Your task to perform on an android device: Open wifi settings Image 0: 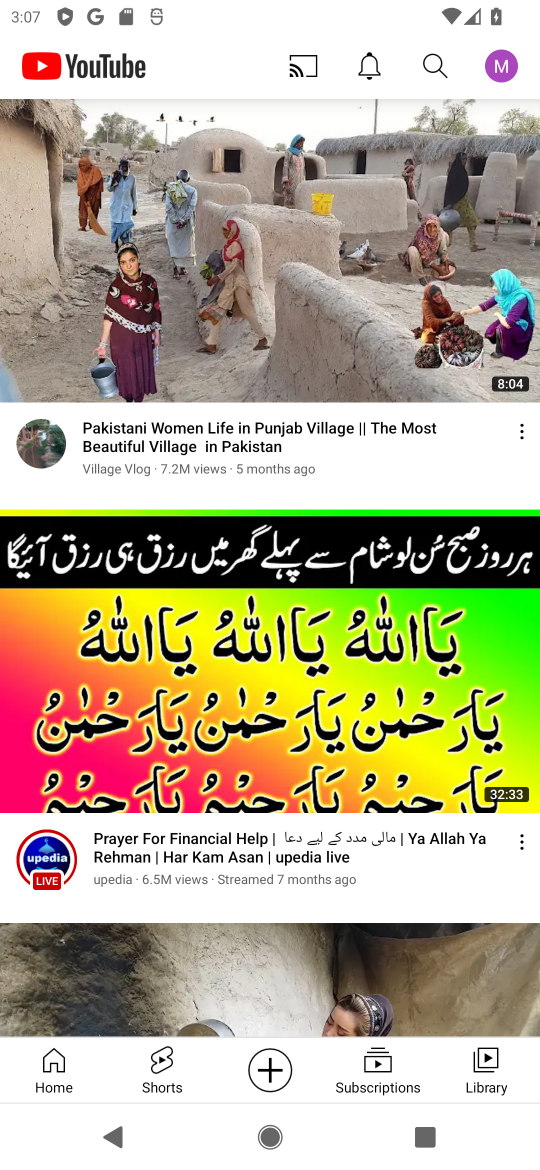
Step 0: press home button
Your task to perform on an android device: Open wifi settings Image 1: 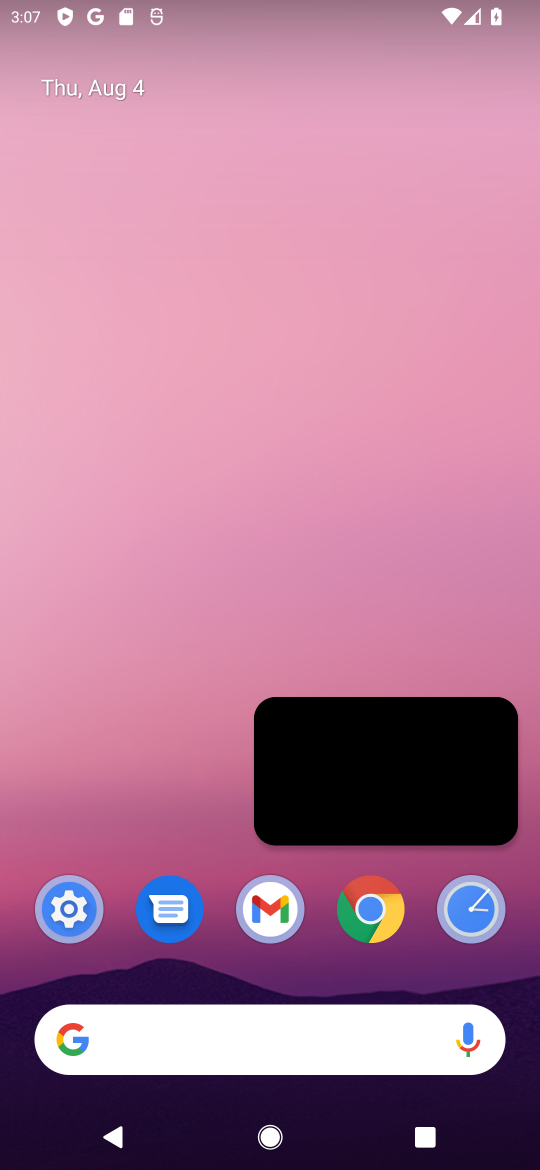
Step 1: click (394, 769)
Your task to perform on an android device: Open wifi settings Image 2: 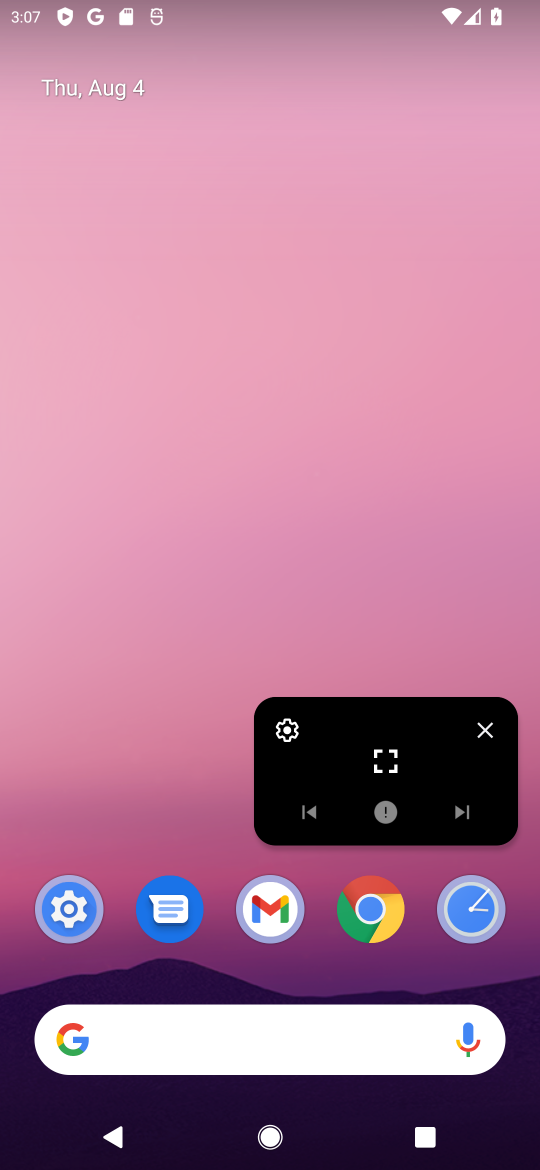
Step 2: click (484, 732)
Your task to perform on an android device: Open wifi settings Image 3: 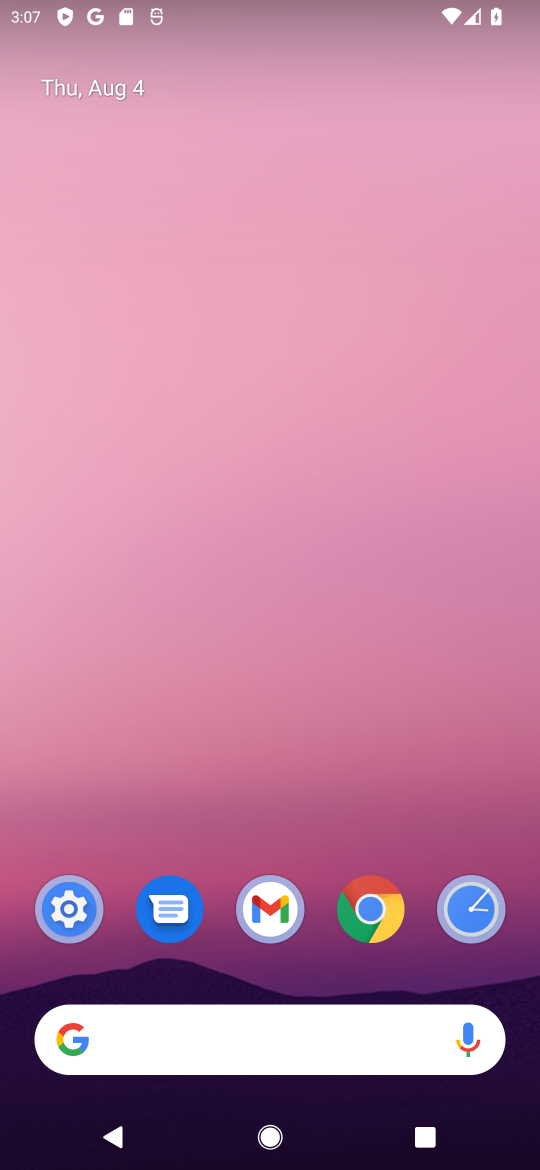
Step 3: click (67, 902)
Your task to perform on an android device: Open wifi settings Image 4: 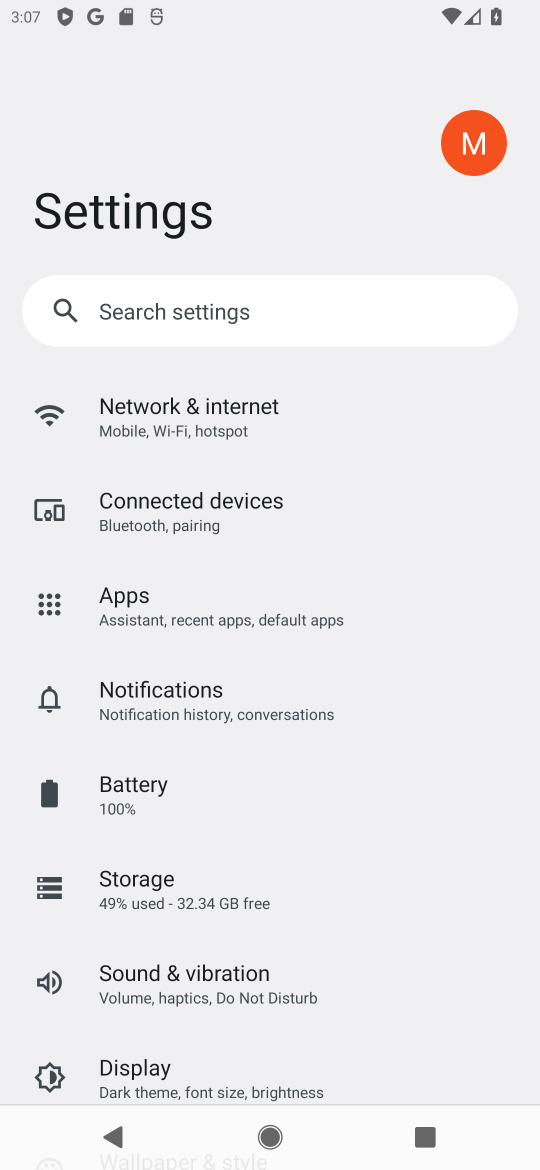
Step 4: click (229, 427)
Your task to perform on an android device: Open wifi settings Image 5: 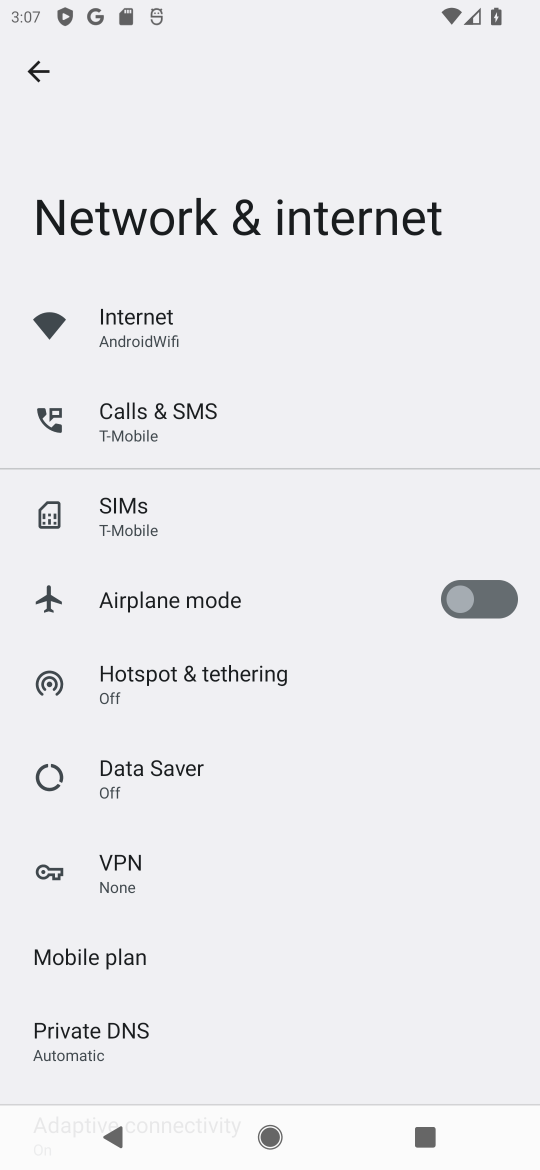
Step 5: click (169, 320)
Your task to perform on an android device: Open wifi settings Image 6: 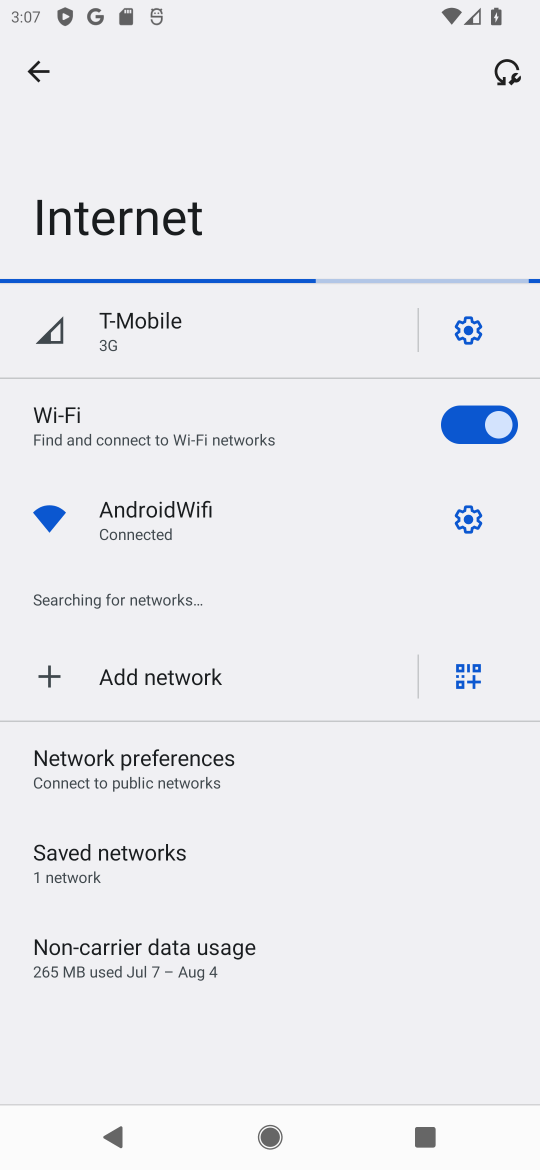
Step 6: click (472, 519)
Your task to perform on an android device: Open wifi settings Image 7: 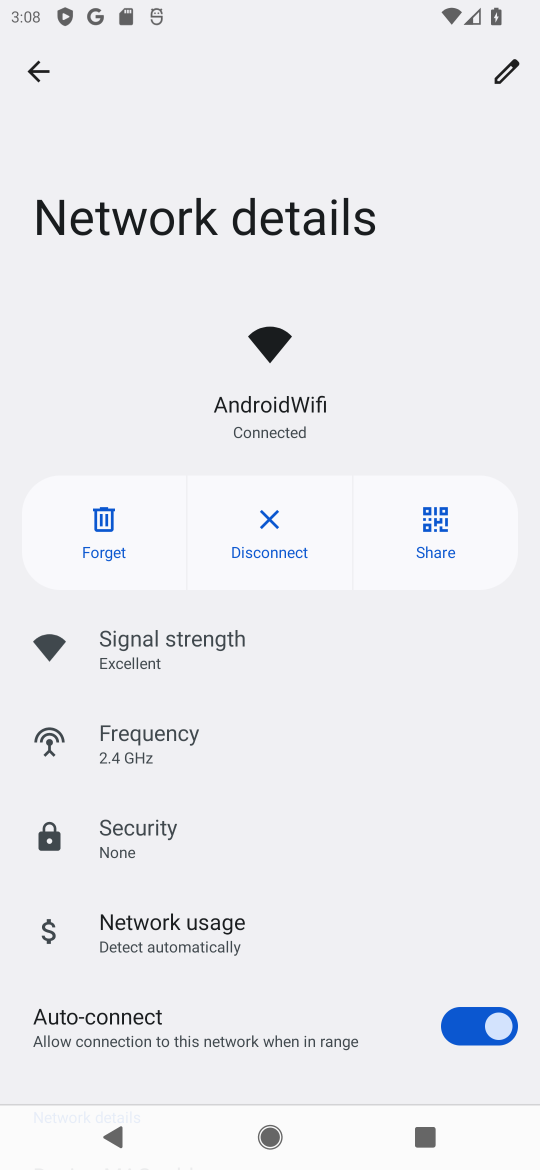
Step 7: task complete